Your task to perform on an android device: Toggle the flashlight Image 0: 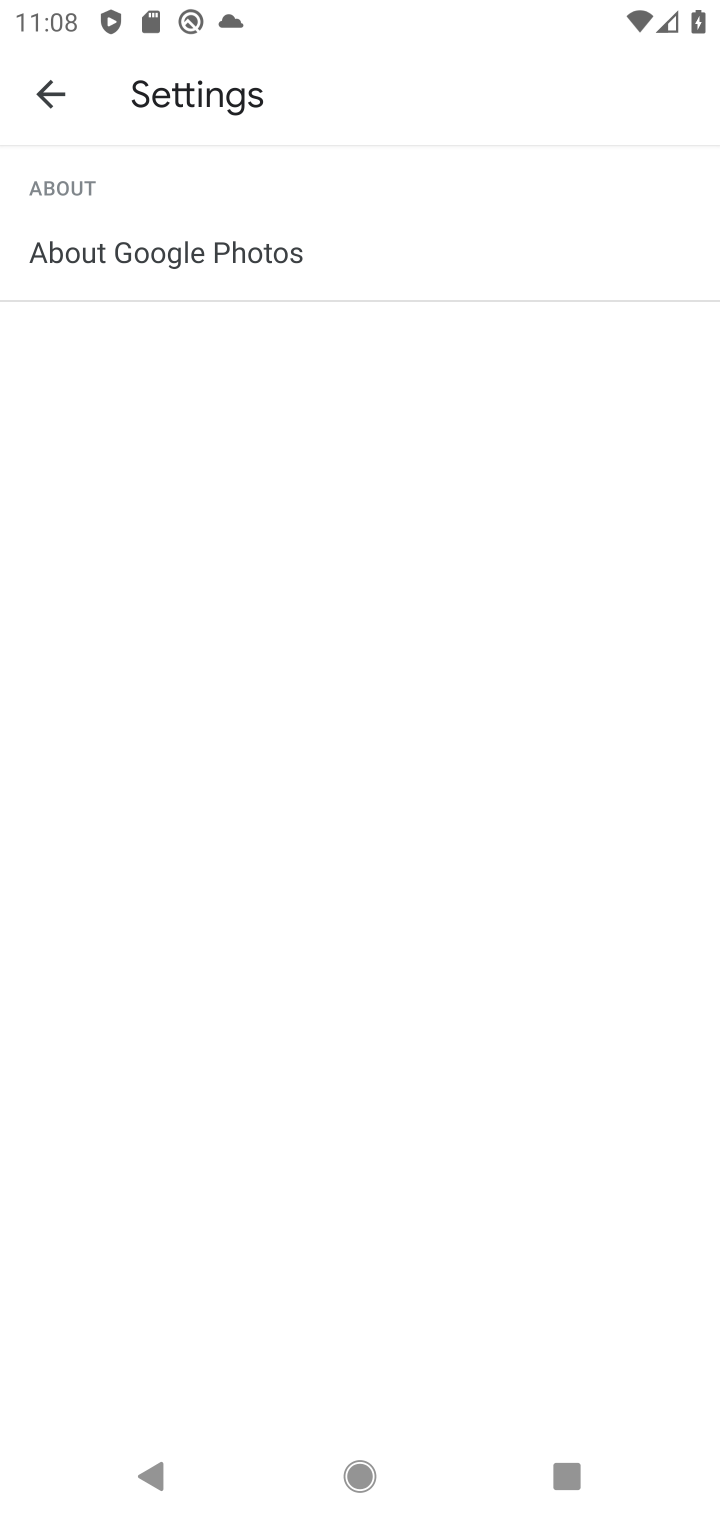
Step 0: press home button
Your task to perform on an android device: Toggle the flashlight Image 1: 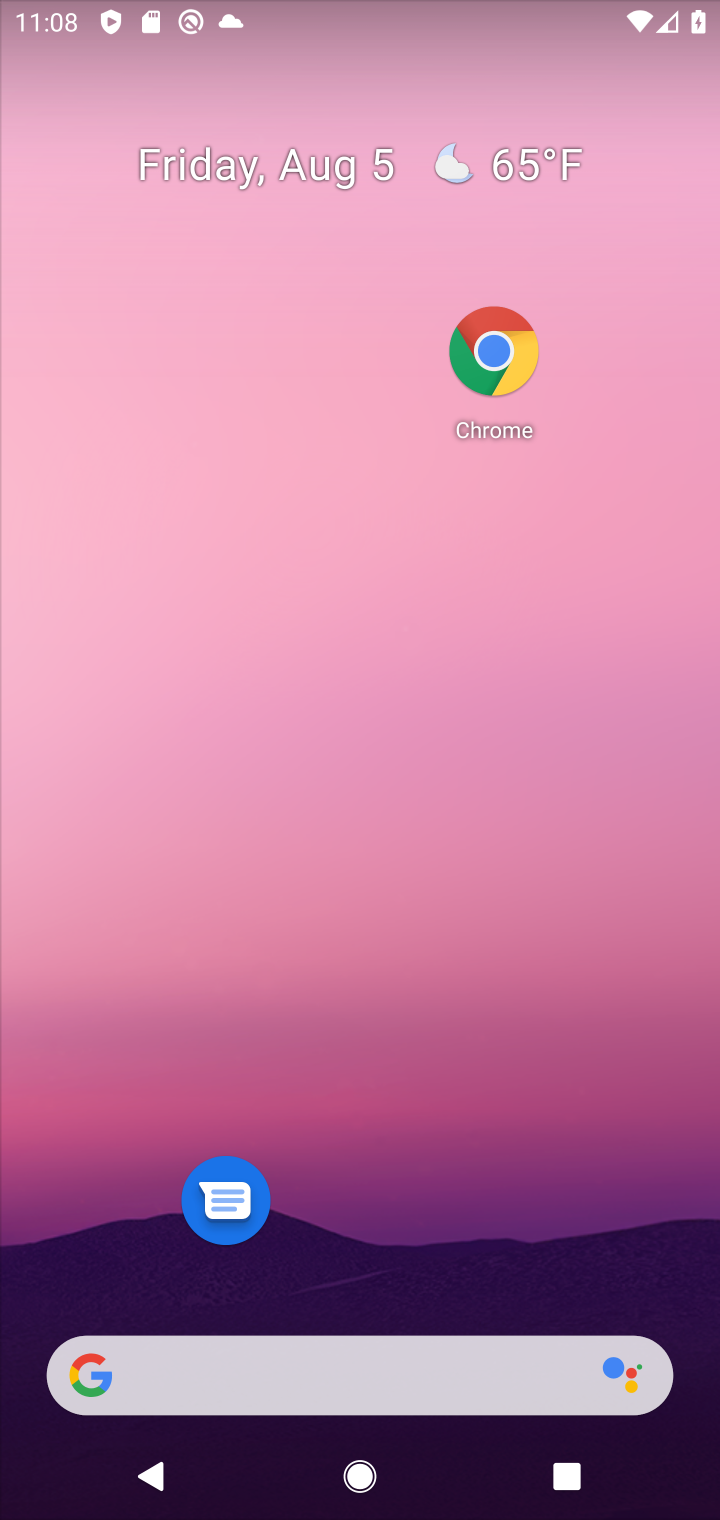
Step 1: task complete